Your task to perform on an android device: Open calendar and show me the second week of next month Image 0: 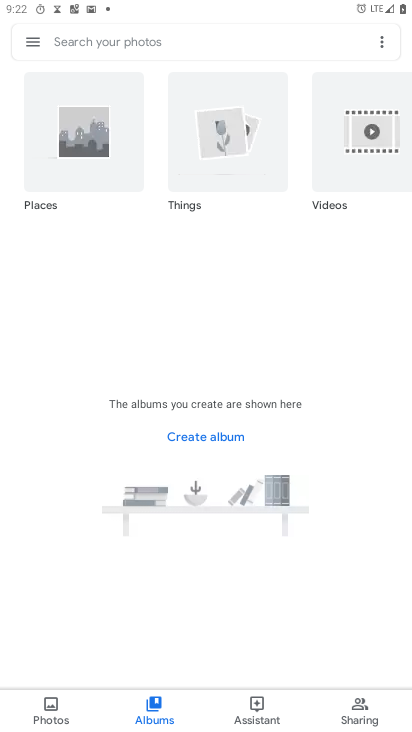
Step 0: press home button
Your task to perform on an android device: Open calendar and show me the second week of next month Image 1: 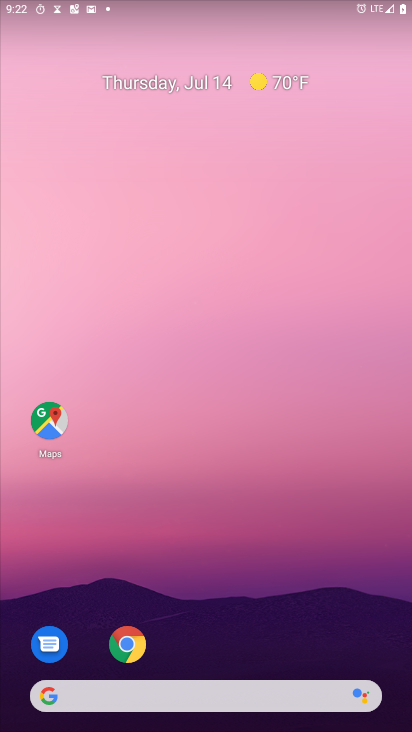
Step 1: drag from (184, 681) to (292, 109)
Your task to perform on an android device: Open calendar and show me the second week of next month Image 2: 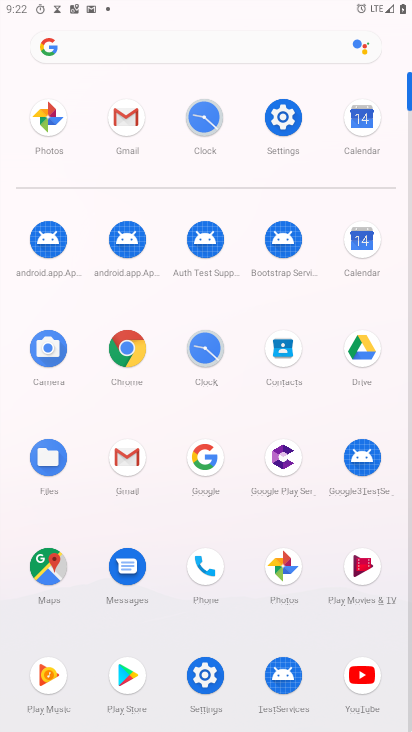
Step 2: click (362, 241)
Your task to perform on an android device: Open calendar and show me the second week of next month Image 3: 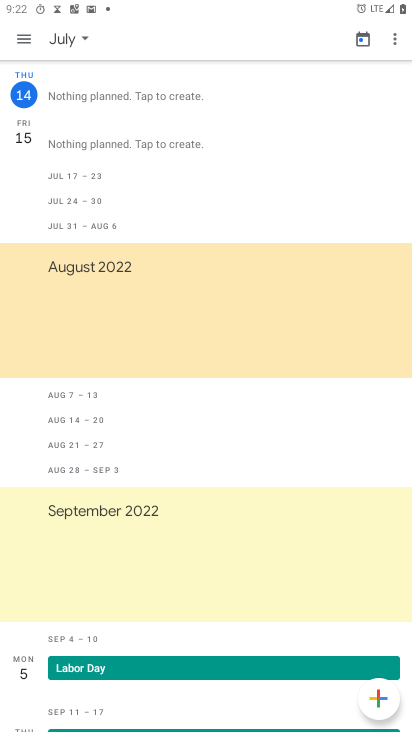
Step 3: click (63, 35)
Your task to perform on an android device: Open calendar and show me the second week of next month Image 4: 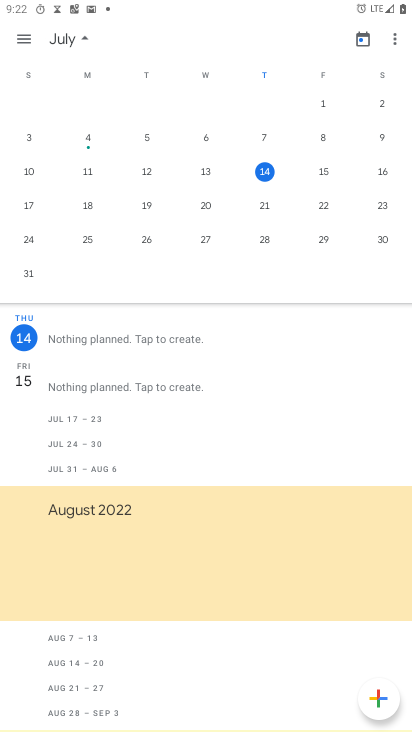
Step 4: drag from (341, 212) to (39, 190)
Your task to perform on an android device: Open calendar and show me the second week of next month Image 5: 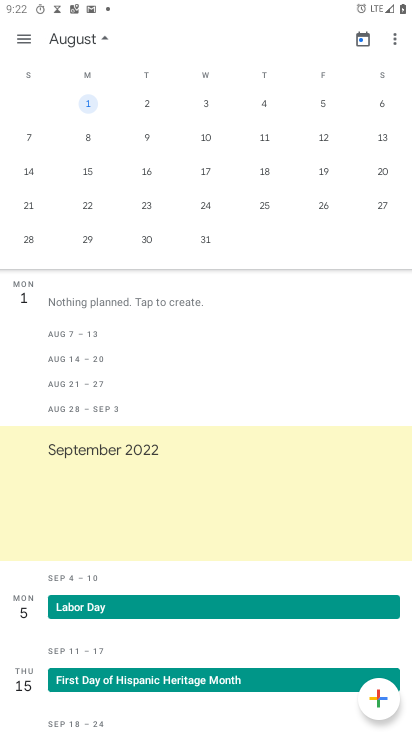
Step 5: click (35, 137)
Your task to perform on an android device: Open calendar and show me the second week of next month Image 6: 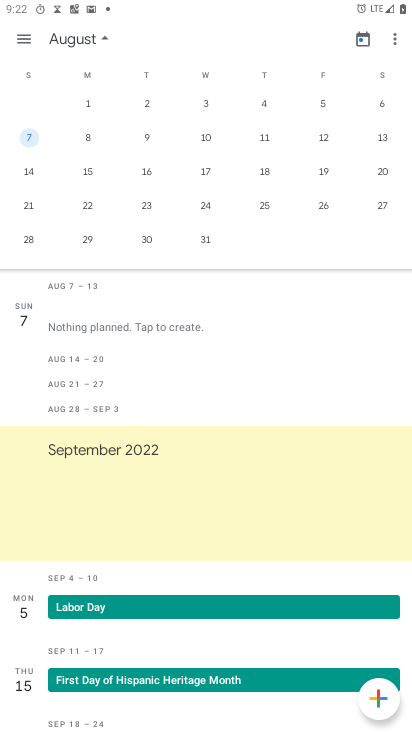
Step 6: click (25, 38)
Your task to perform on an android device: Open calendar and show me the second week of next month Image 7: 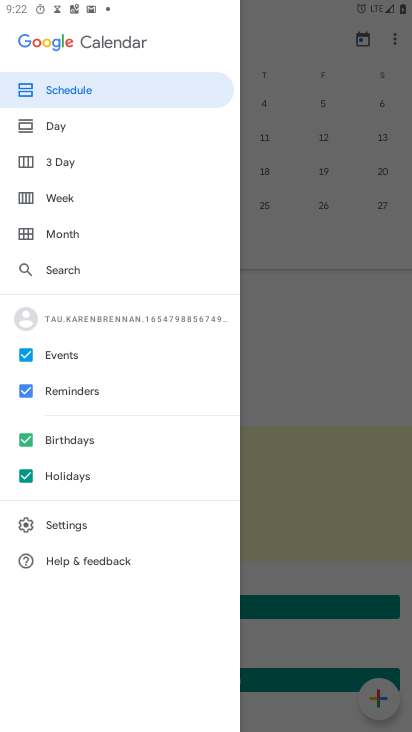
Step 7: click (67, 197)
Your task to perform on an android device: Open calendar and show me the second week of next month Image 8: 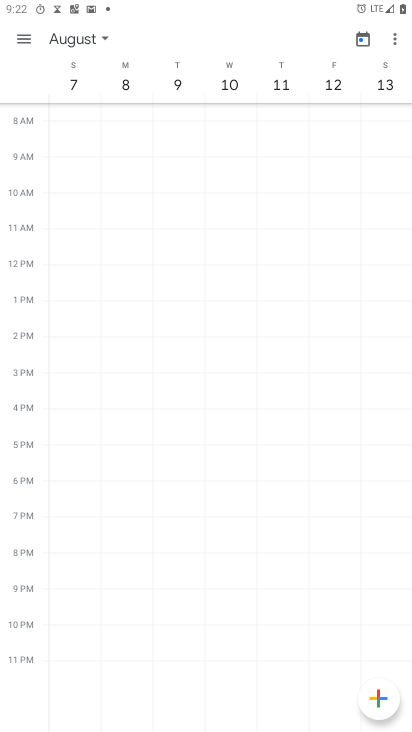
Step 8: task complete